Your task to perform on an android device: Open Chrome and go to settings Image 0: 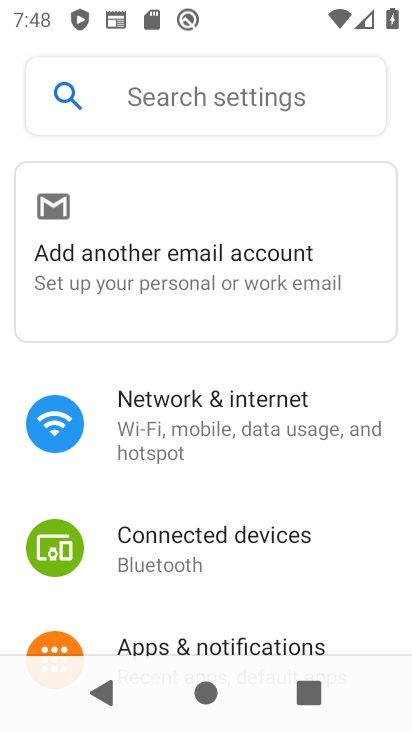
Step 0: press home button
Your task to perform on an android device: Open Chrome and go to settings Image 1: 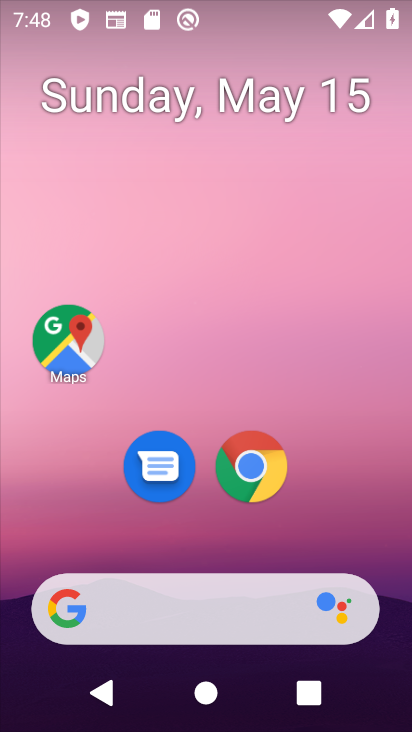
Step 1: click (261, 460)
Your task to perform on an android device: Open Chrome and go to settings Image 2: 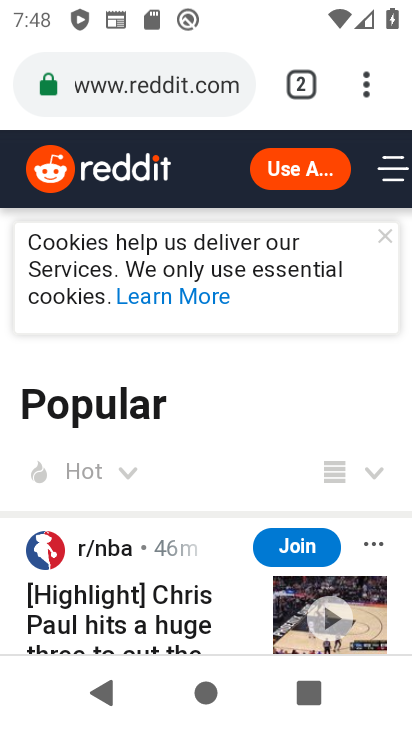
Step 2: click (369, 96)
Your task to perform on an android device: Open Chrome and go to settings Image 3: 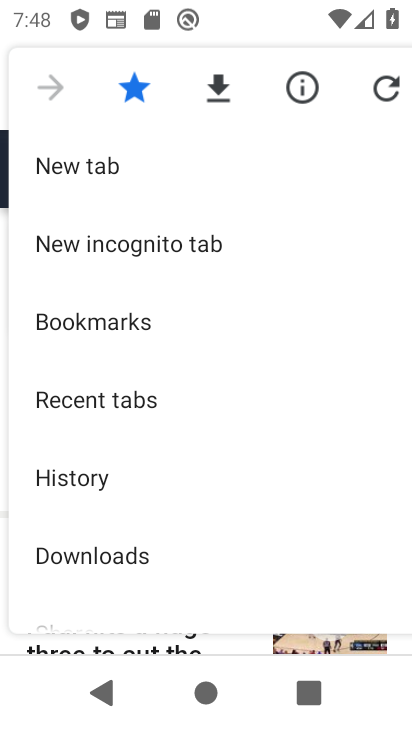
Step 3: drag from (195, 444) to (170, 65)
Your task to perform on an android device: Open Chrome and go to settings Image 4: 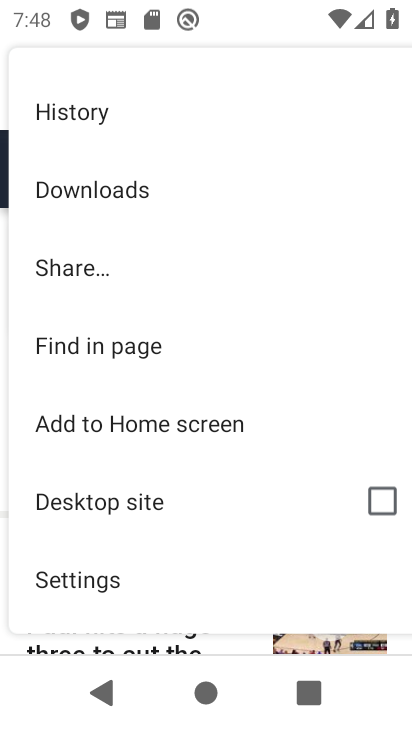
Step 4: click (114, 574)
Your task to perform on an android device: Open Chrome and go to settings Image 5: 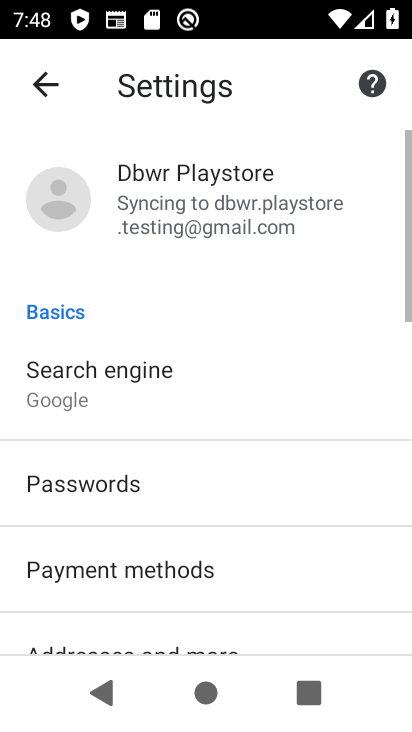
Step 5: task complete